Your task to perform on an android device: make emails show in primary in the gmail app Image 0: 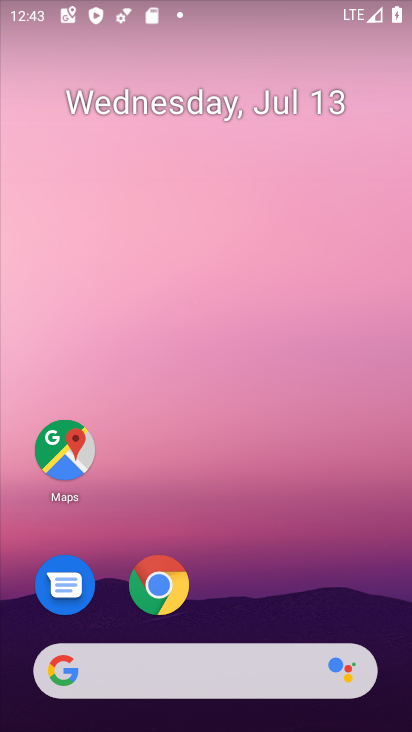
Step 0: drag from (226, 520) to (174, 20)
Your task to perform on an android device: make emails show in primary in the gmail app Image 1: 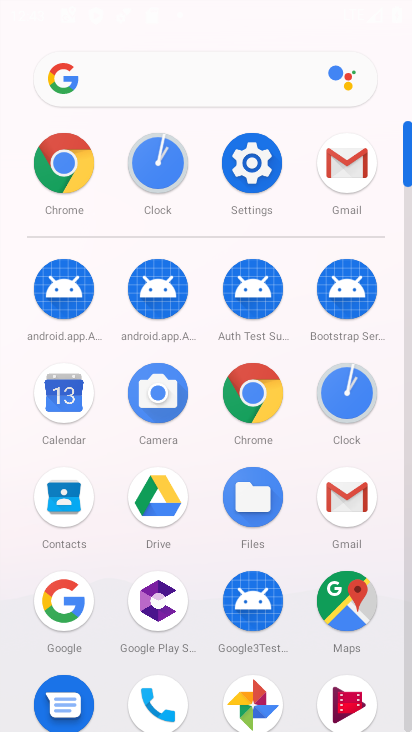
Step 1: click (351, 174)
Your task to perform on an android device: make emails show in primary in the gmail app Image 2: 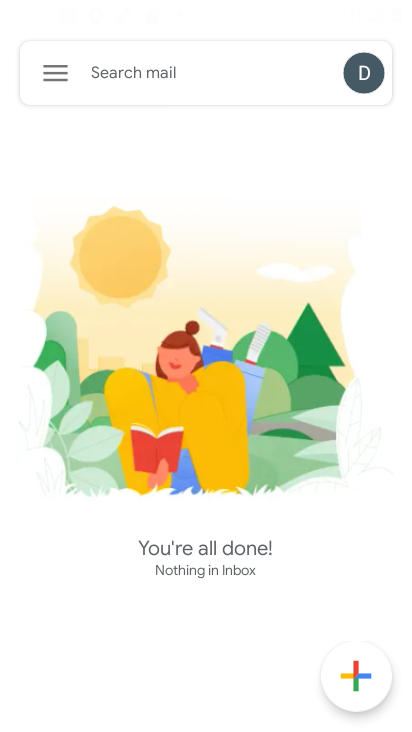
Step 2: click (49, 74)
Your task to perform on an android device: make emails show in primary in the gmail app Image 3: 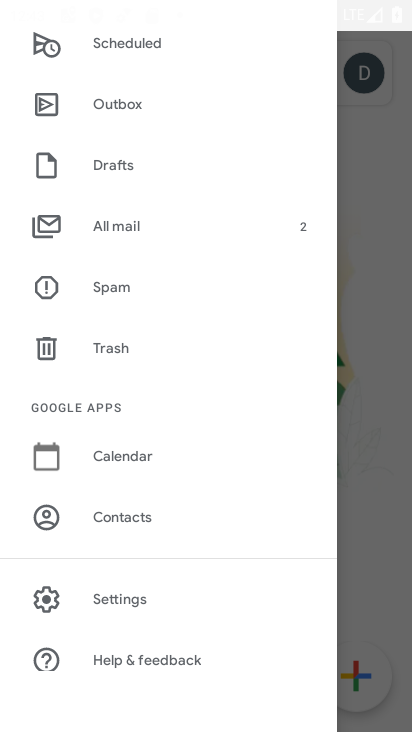
Step 3: drag from (195, 254) to (18, 731)
Your task to perform on an android device: make emails show in primary in the gmail app Image 4: 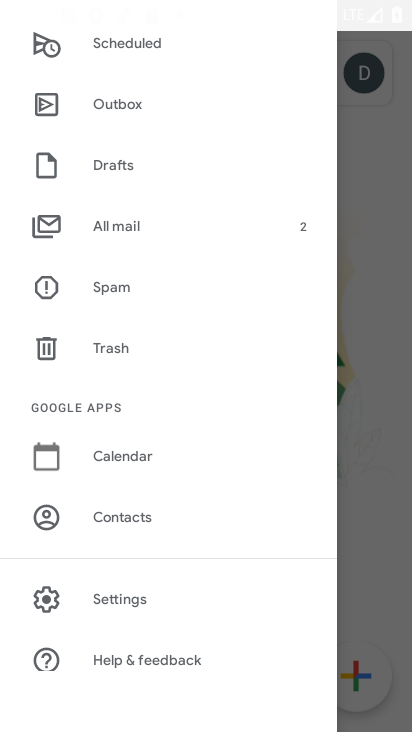
Step 4: click (110, 602)
Your task to perform on an android device: make emails show in primary in the gmail app Image 5: 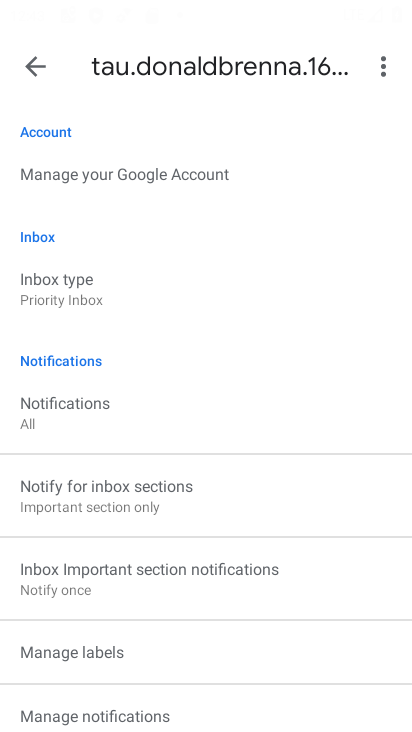
Step 5: task complete